Your task to perform on an android device: change timer sound Image 0: 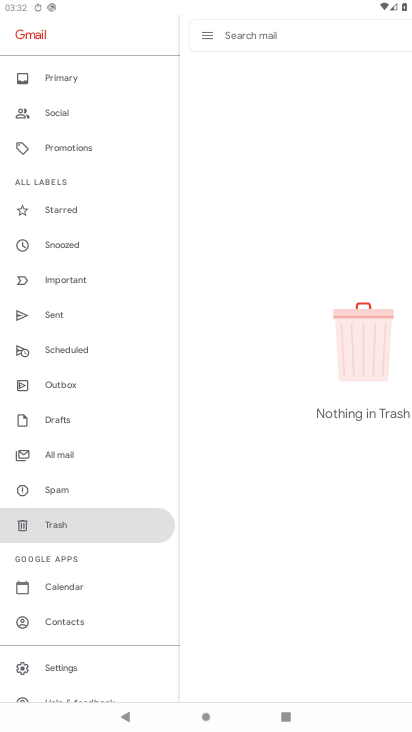
Step 0: press home button
Your task to perform on an android device: change timer sound Image 1: 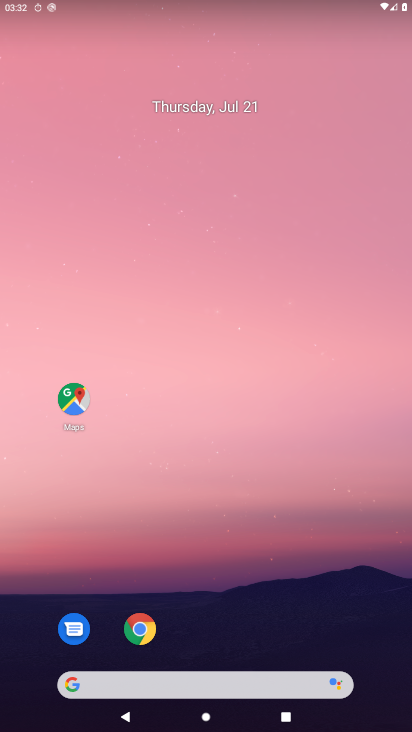
Step 1: drag from (11, 678) to (218, 105)
Your task to perform on an android device: change timer sound Image 2: 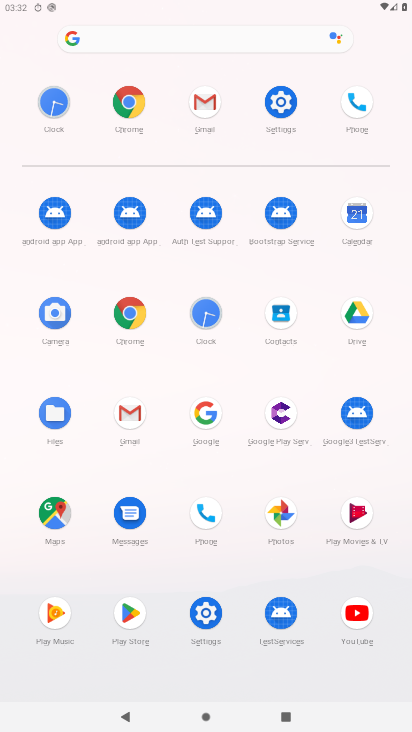
Step 2: click (214, 321)
Your task to perform on an android device: change timer sound Image 3: 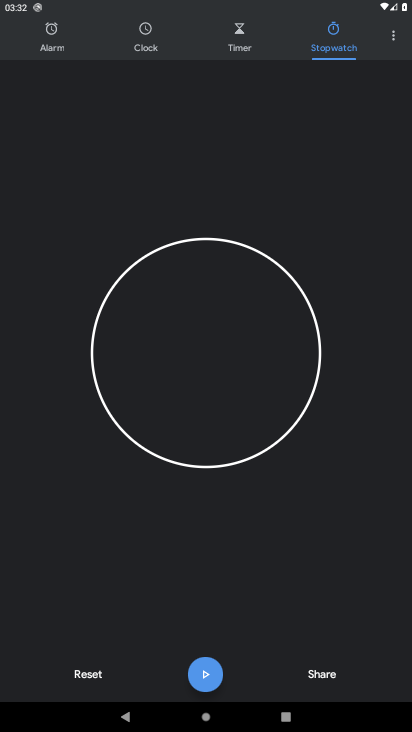
Step 3: click (179, 369)
Your task to perform on an android device: change timer sound Image 4: 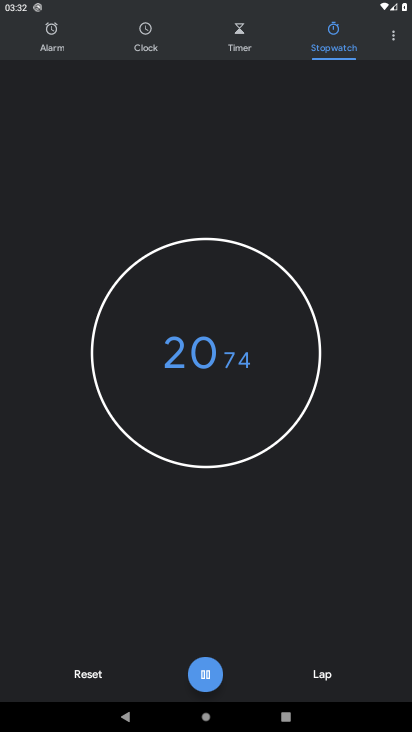
Step 4: click (196, 390)
Your task to perform on an android device: change timer sound Image 5: 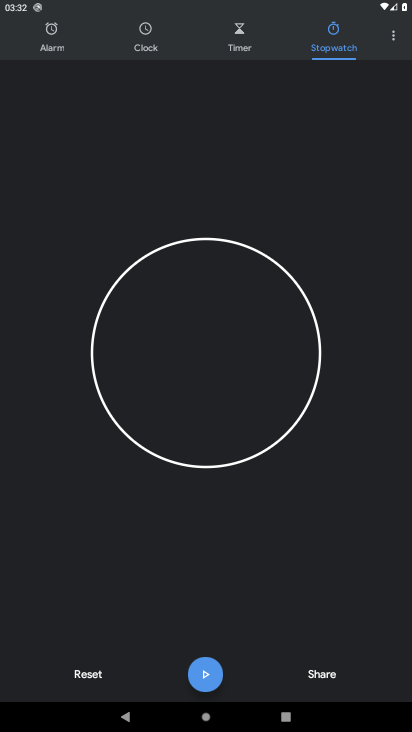
Step 5: click (382, 18)
Your task to perform on an android device: change timer sound Image 6: 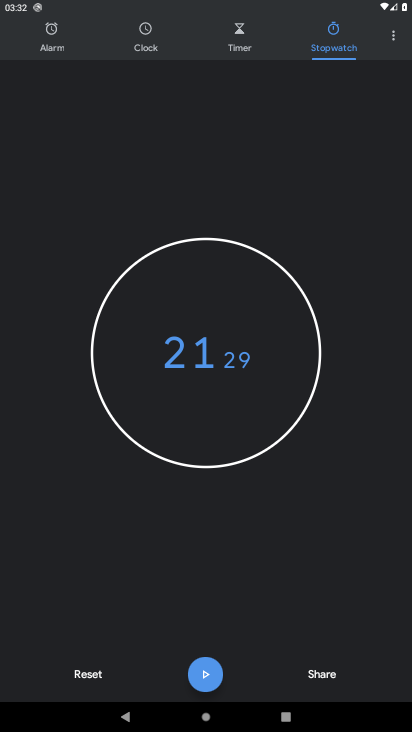
Step 6: click (234, 42)
Your task to perform on an android device: change timer sound Image 7: 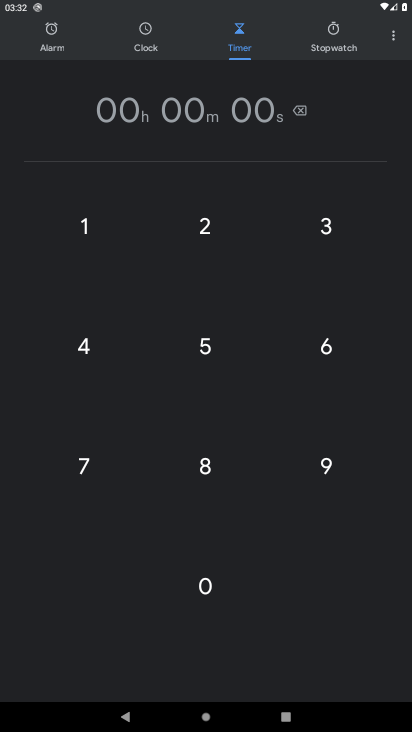
Step 7: click (387, 39)
Your task to perform on an android device: change timer sound Image 8: 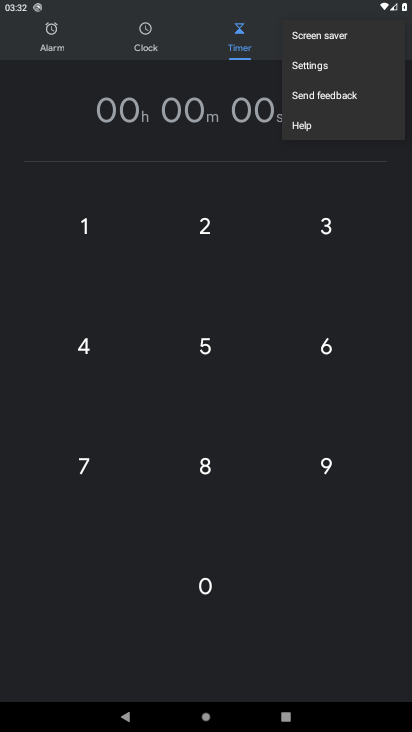
Step 8: click (314, 75)
Your task to perform on an android device: change timer sound Image 9: 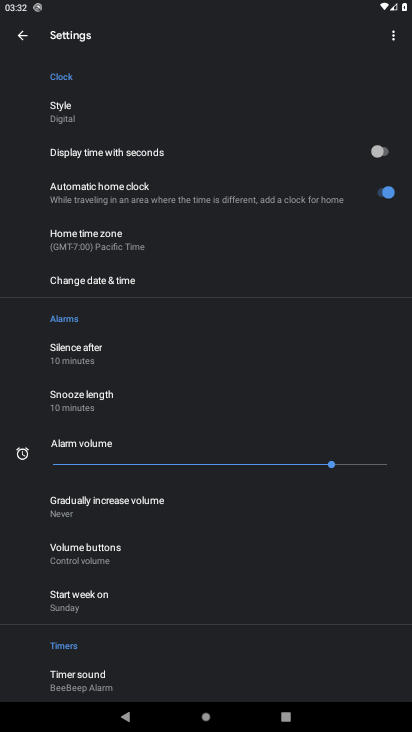
Step 9: drag from (37, 567) to (149, 215)
Your task to perform on an android device: change timer sound Image 10: 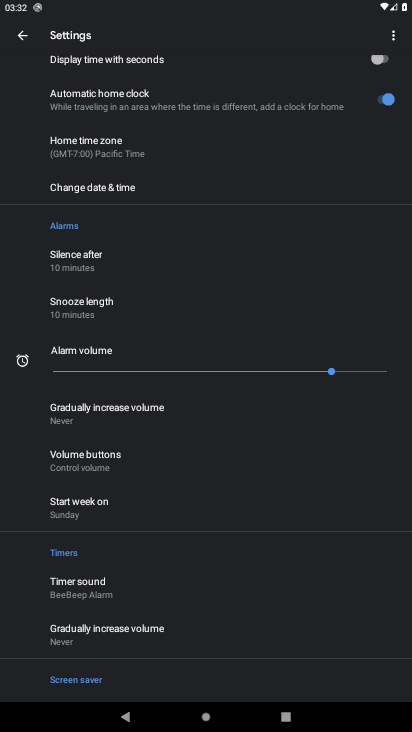
Step 10: click (67, 600)
Your task to perform on an android device: change timer sound Image 11: 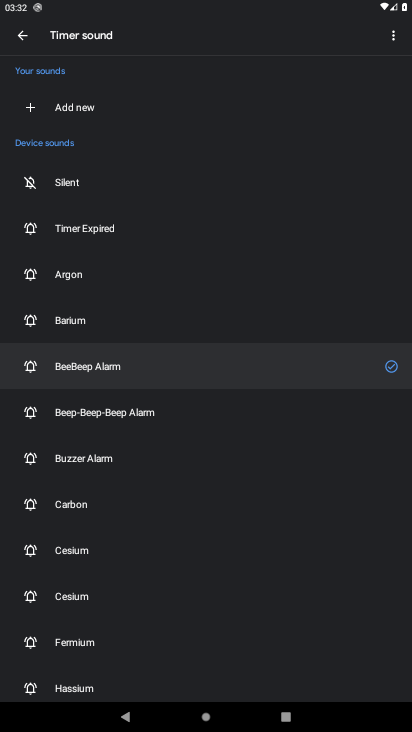
Step 11: click (68, 479)
Your task to perform on an android device: change timer sound Image 12: 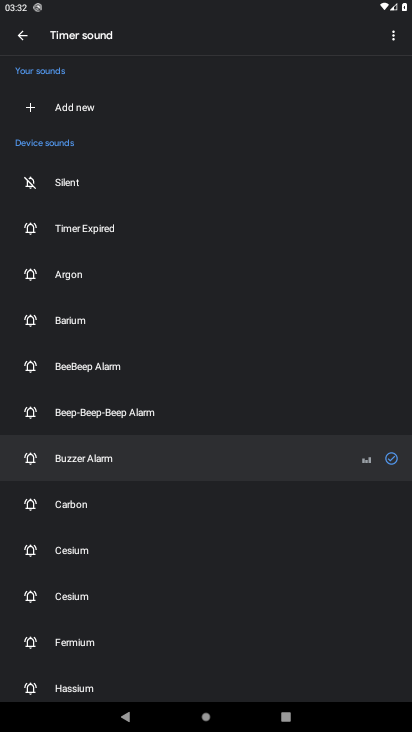
Step 12: task complete